Your task to perform on an android device: toggle javascript in the chrome app Image 0: 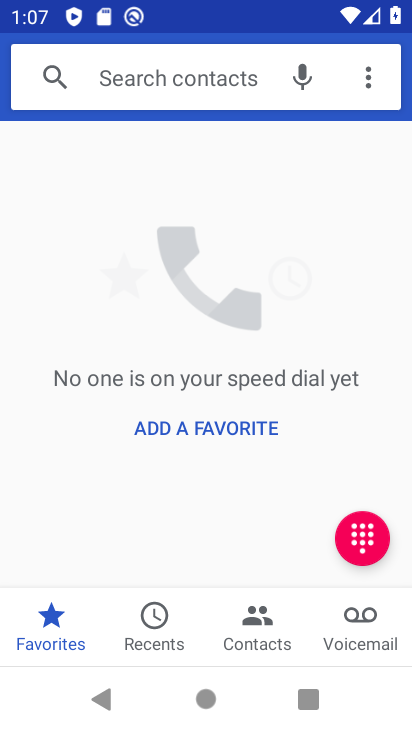
Step 0: press home button
Your task to perform on an android device: toggle javascript in the chrome app Image 1: 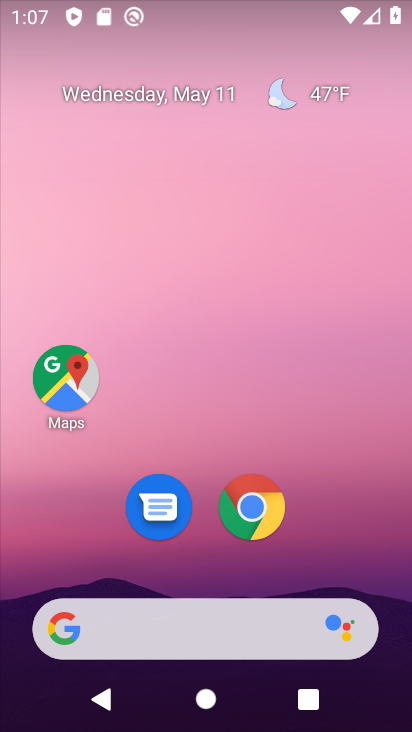
Step 1: click (342, 517)
Your task to perform on an android device: toggle javascript in the chrome app Image 2: 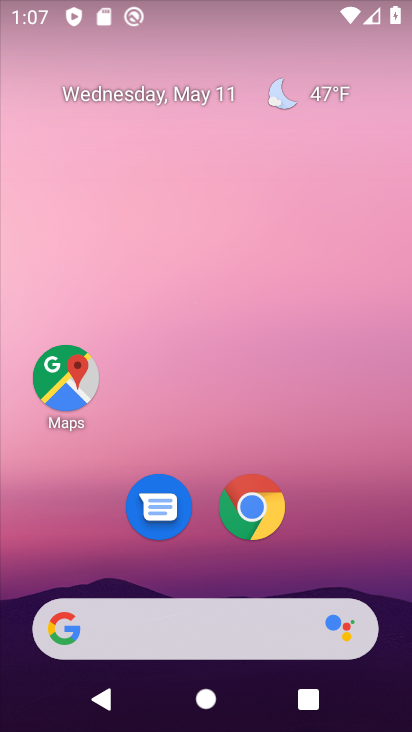
Step 2: click (256, 505)
Your task to perform on an android device: toggle javascript in the chrome app Image 3: 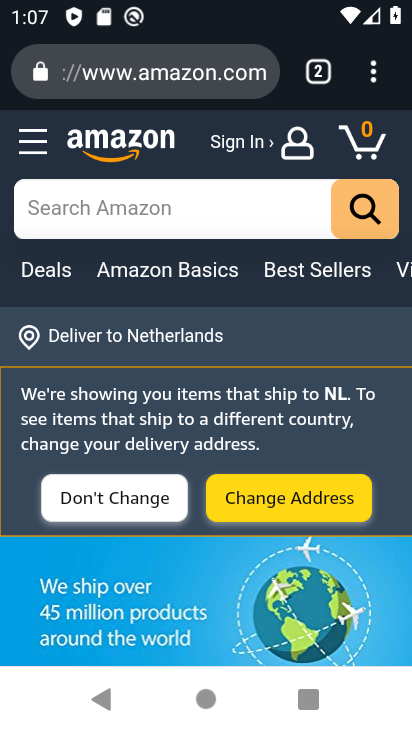
Step 3: click (373, 89)
Your task to perform on an android device: toggle javascript in the chrome app Image 4: 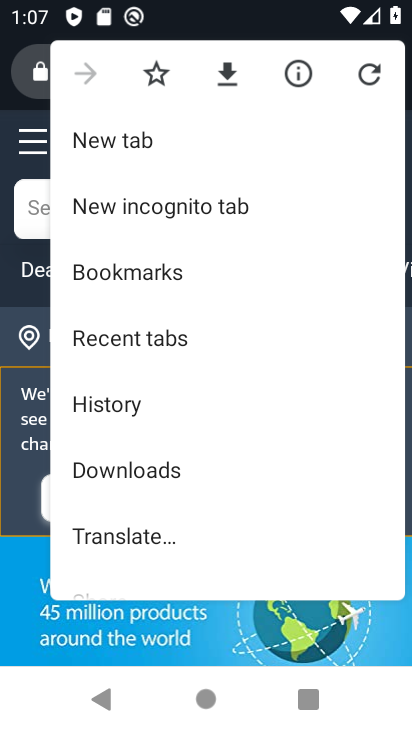
Step 4: drag from (239, 477) to (186, 53)
Your task to perform on an android device: toggle javascript in the chrome app Image 5: 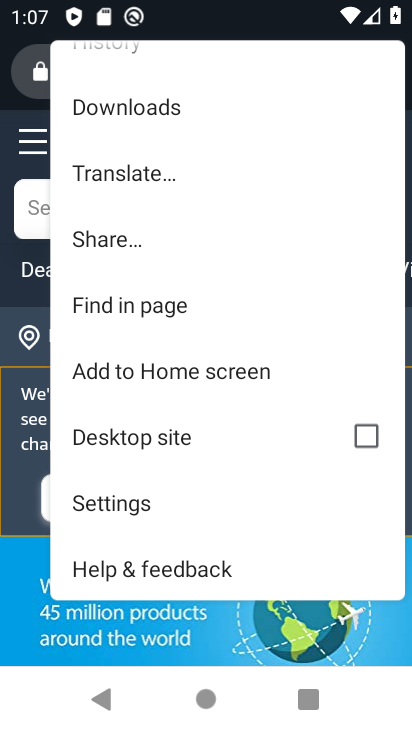
Step 5: click (185, 327)
Your task to perform on an android device: toggle javascript in the chrome app Image 6: 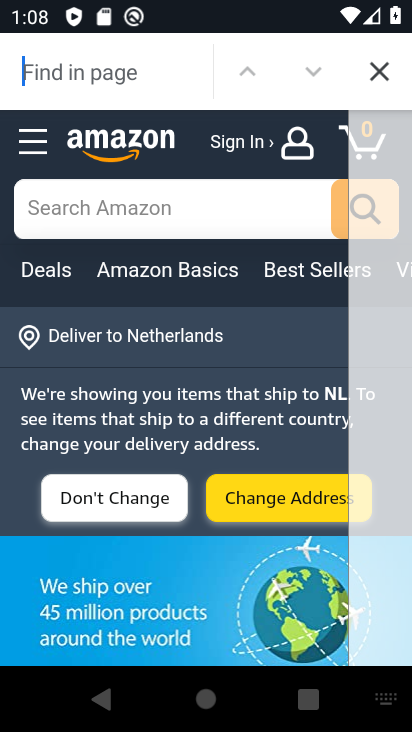
Step 6: click (376, 73)
Your task to perform on an android device: toggle javascript in the chrome app Image 7: 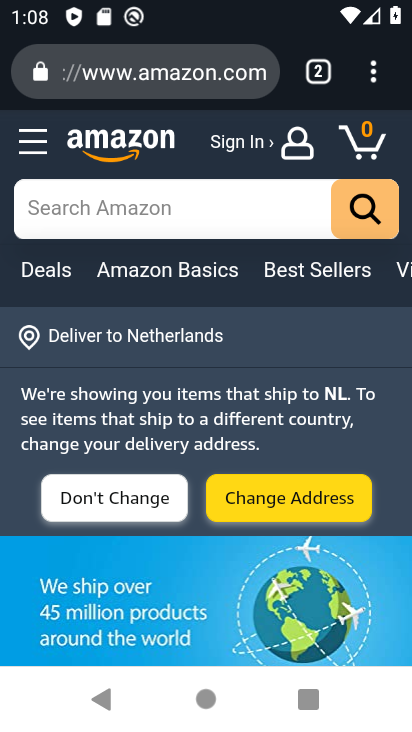
Step 7: click (375, 68)
Your task to perform on an android device: toggle javascript in the chrome app Image 8: 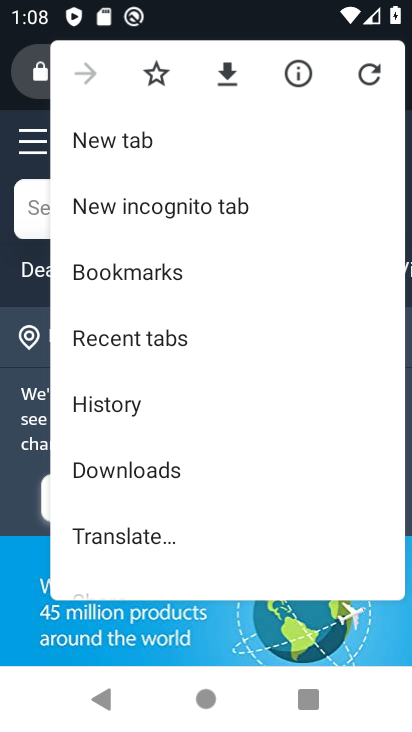
Step 8: drag from (255, 477) to (220, 113)
Your task to perform on an android device: toggle javascript in the chrome app Image 9: 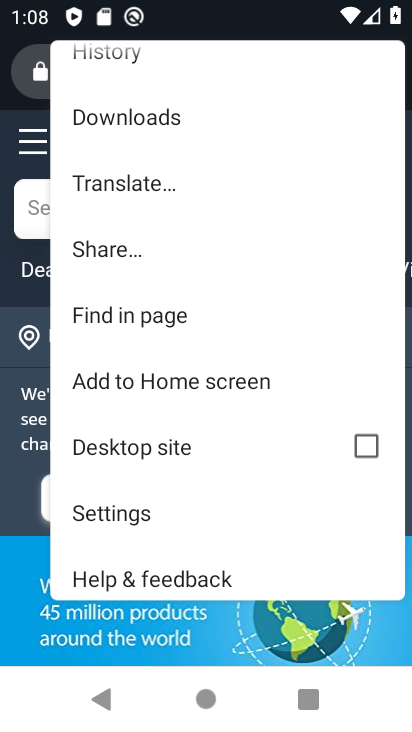
Step 9: click (116, 518)
Your task to perform on an android device: toggle javascript in the chrome app Image 10: 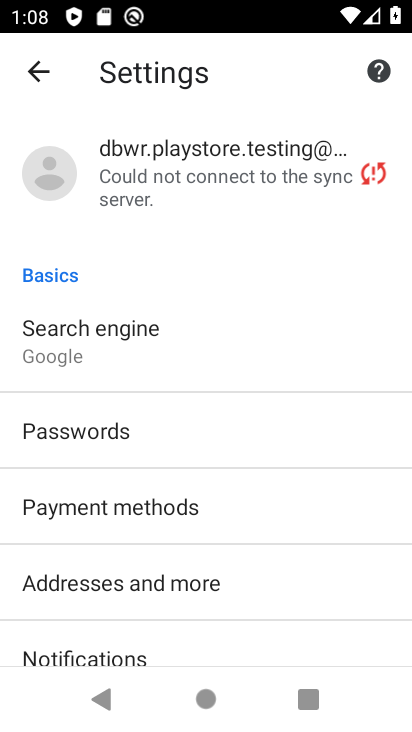
Step 10: drag from (285, 560) to (232, 250)
Your task to perform on an android device: toggle javascript in the chrome app Image 11: 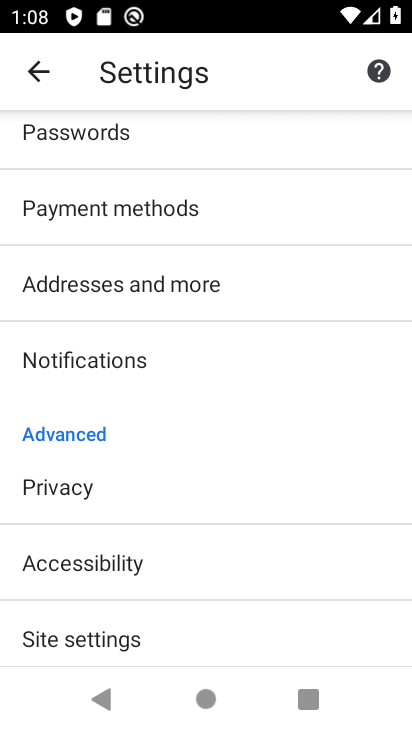
Step 11: drag from (225, 529) to (222, 209)
Your task to perform on an android device: toggle javascript in the chrome app Image 12: 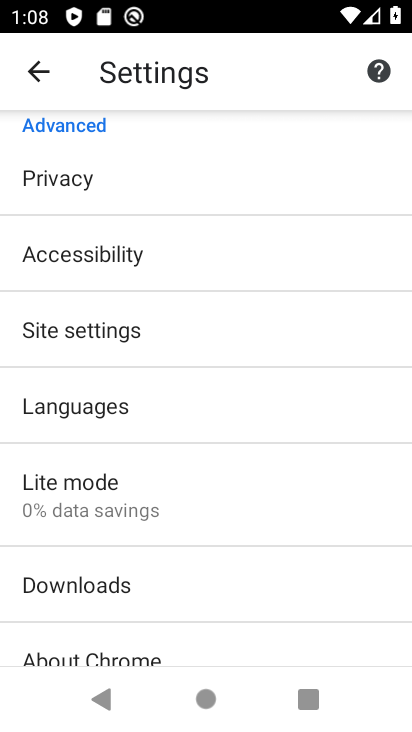
Step 12: click (89, 330)
Your task to perform on an android device: toggle javascript in the chrome app Image 13: 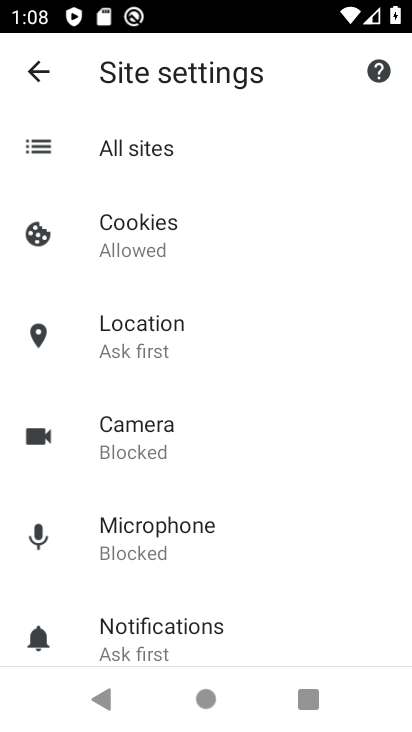
Step 13: drag from (241, 520) to (225, 179)
Your task to perform on an android device: toggle javascript in the chrome app Image 14: 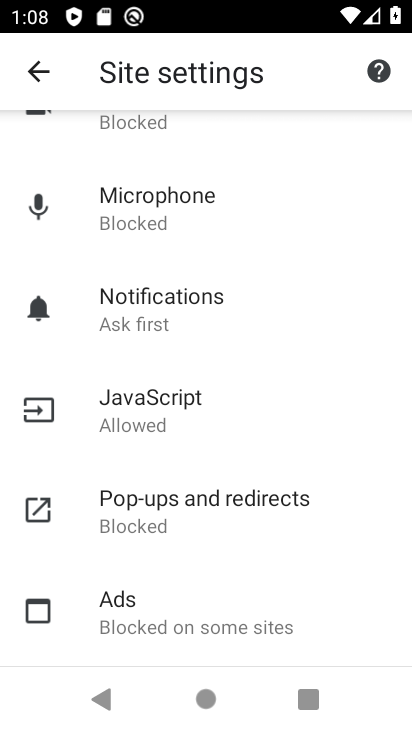
Step 14: click (170, 396)
Your task to perform on an android device: toggle javascript in the chrome app Image 15: 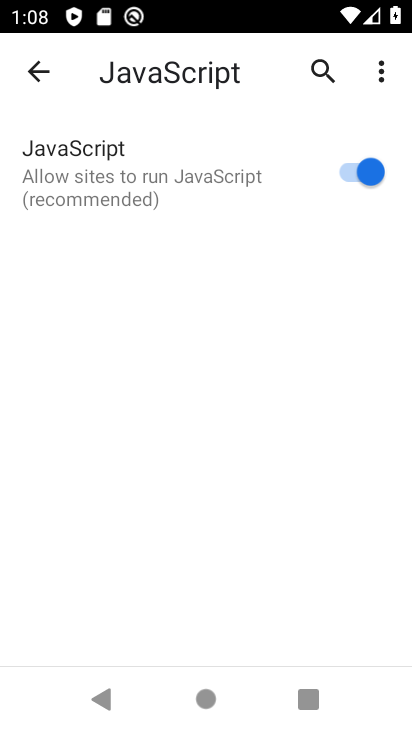
Step 15: click (368, 171)
Your task to perform on an android device: toggle javascript in the chrome app Image 16: 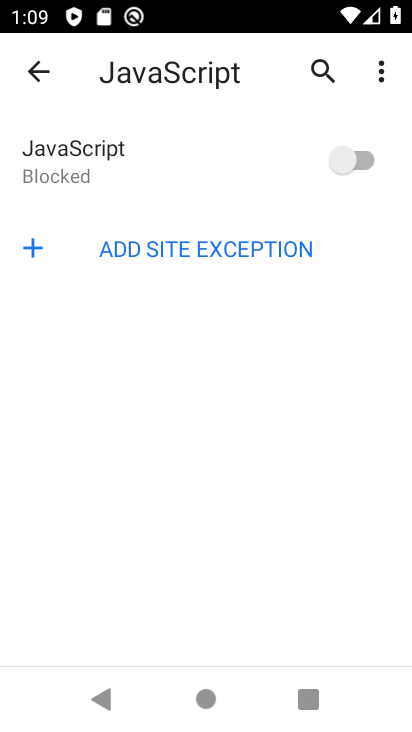
Step 16: task complete